Your task to perform on an android device: Open Youtube and go to the subscriptions tab Image 0: 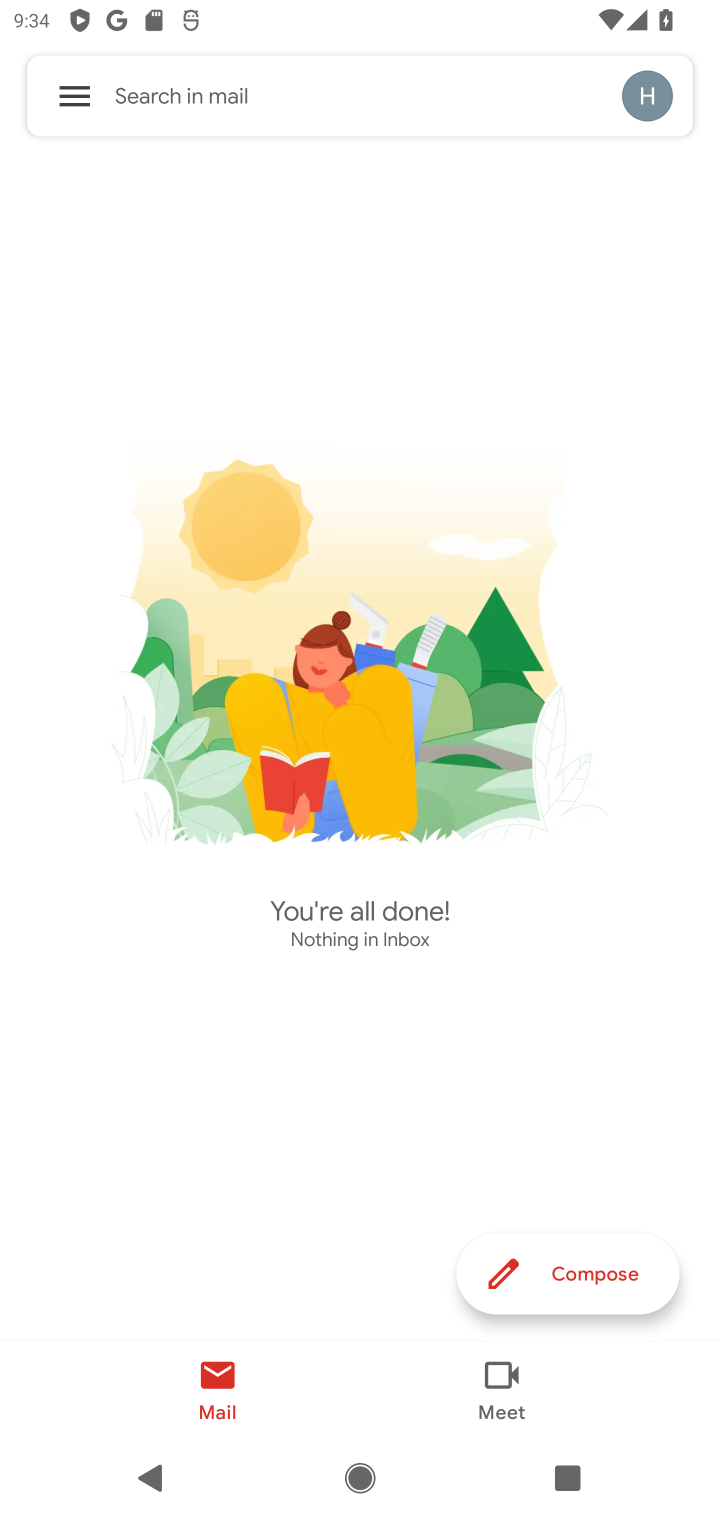
Step 0: press back button
Your task to perform on an android device: Open Youtube and go to the subscriptions tab Image 1: 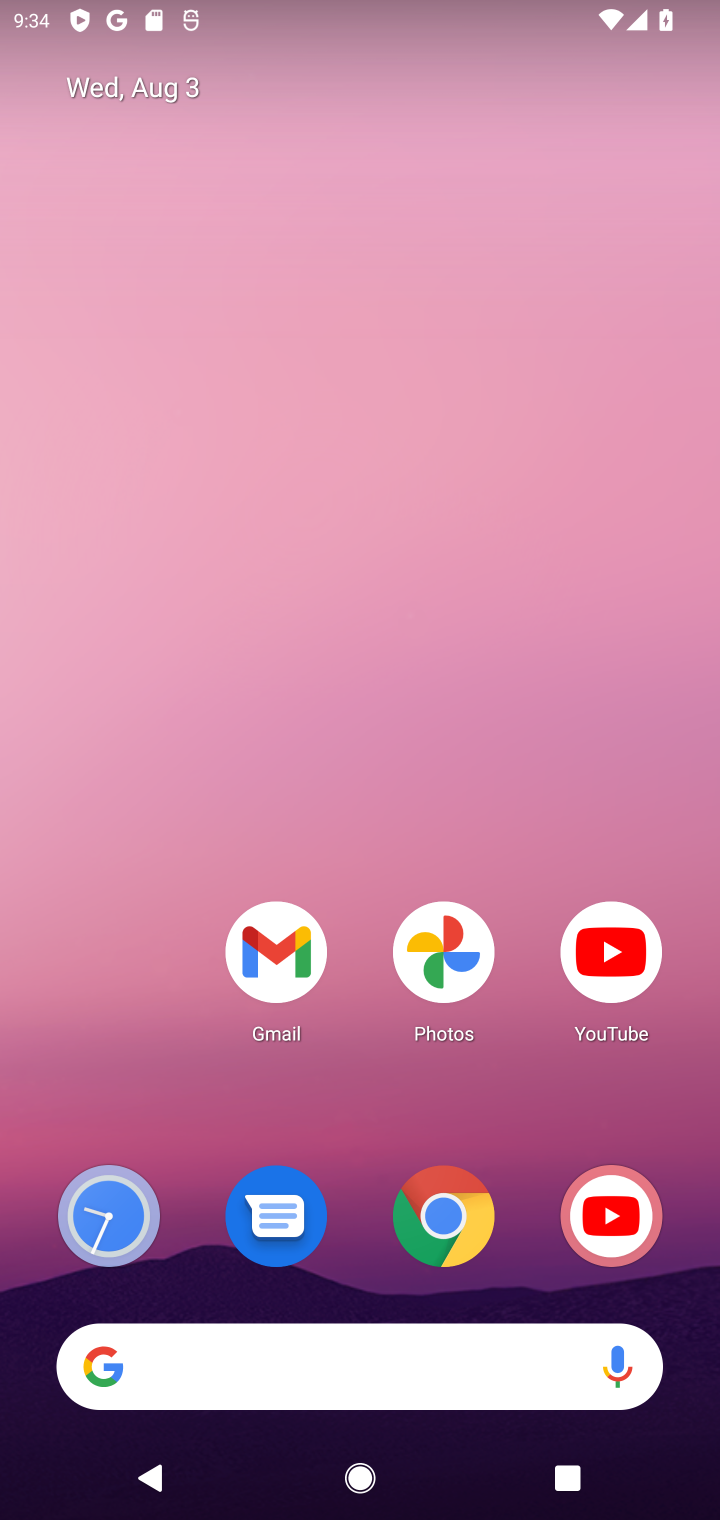
Step 1: click (637, 1224)
Your task to perform on an android device: Open Youtube and go to the subscriptions tab Image 2: 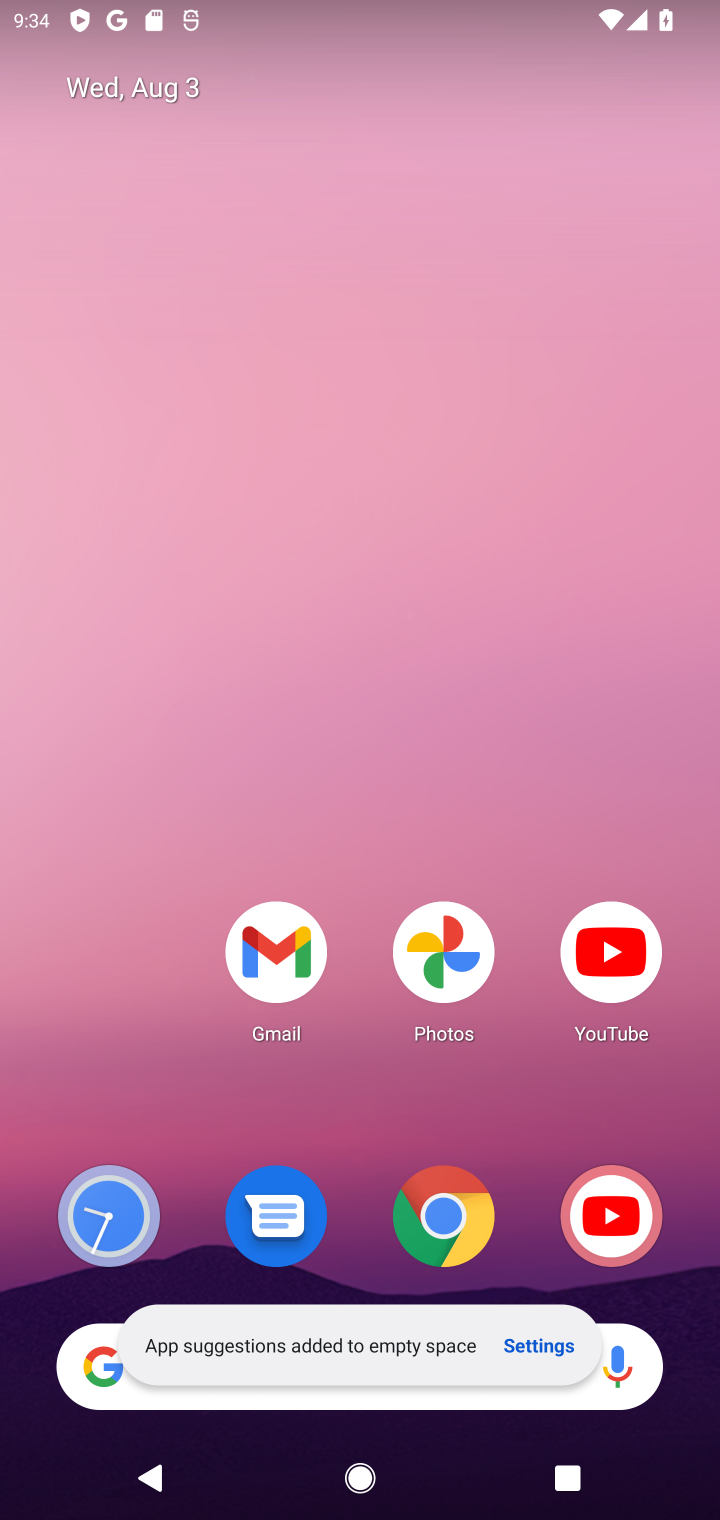
Step 2: click (608, 1214)
Your task to perform on an android device: Open Youtube and go to the subscriptions tab Image 3: 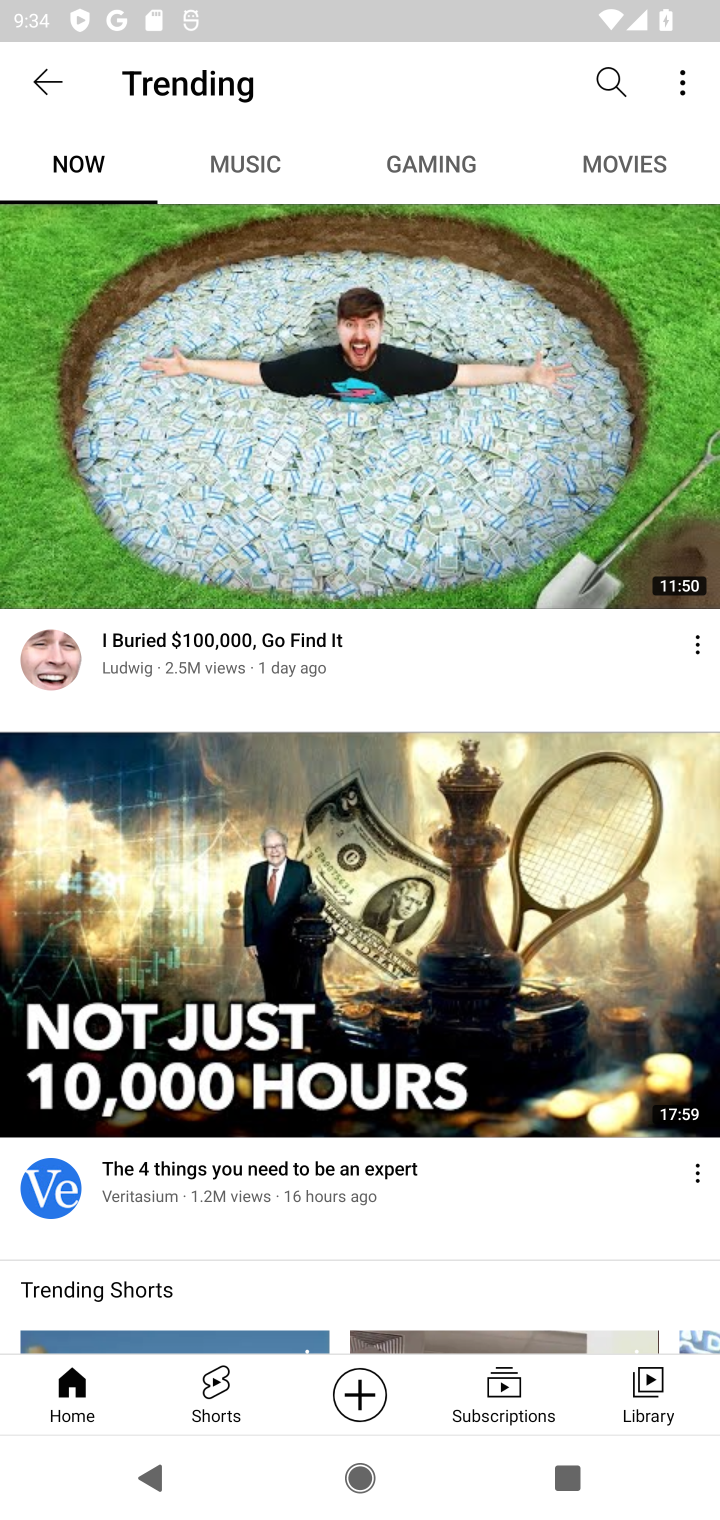
Step 3: click (509, 1417)
Your task to perform on an android device: Open Youtube and go to the subscriptions tab Image 4: 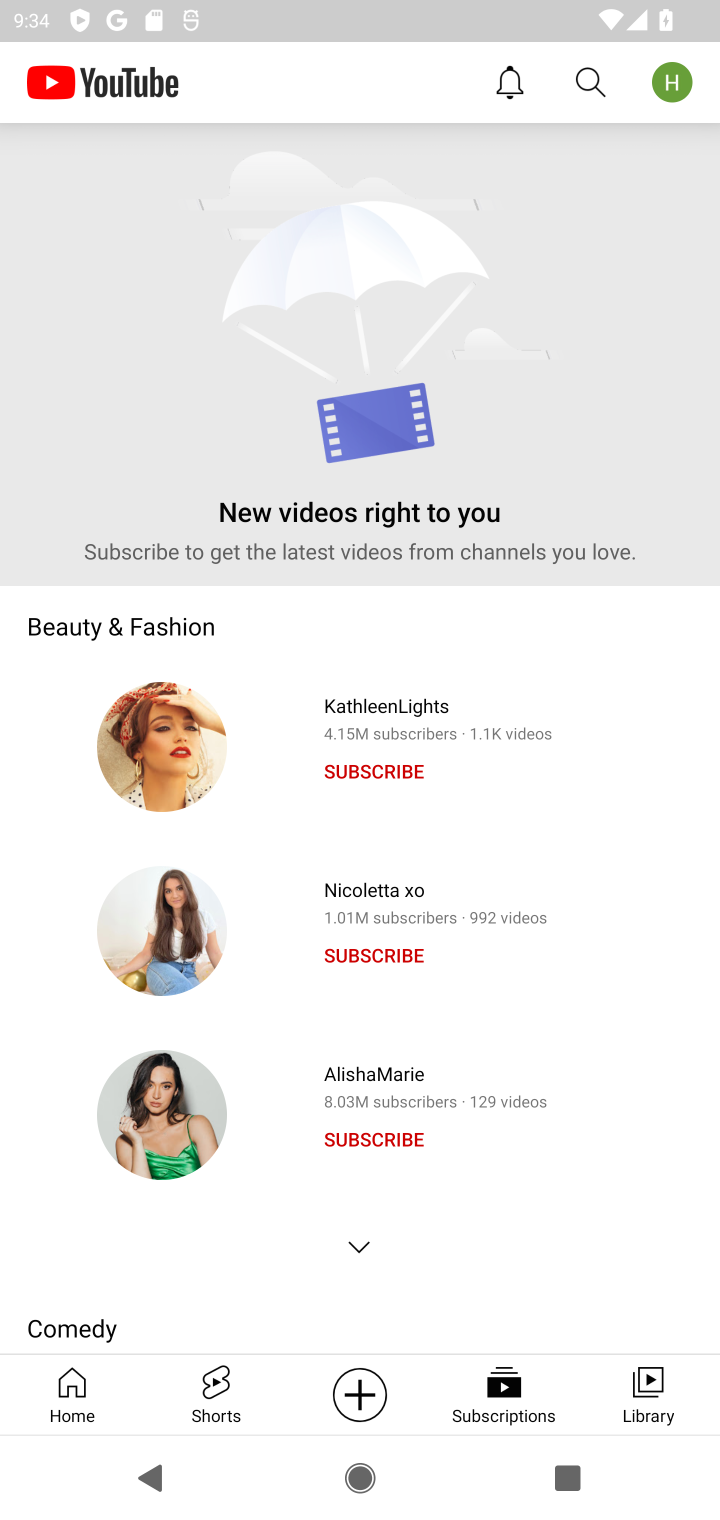
Step 4: task complete